Your task to perform on an android device: change the clock display to show seconds Image 0: 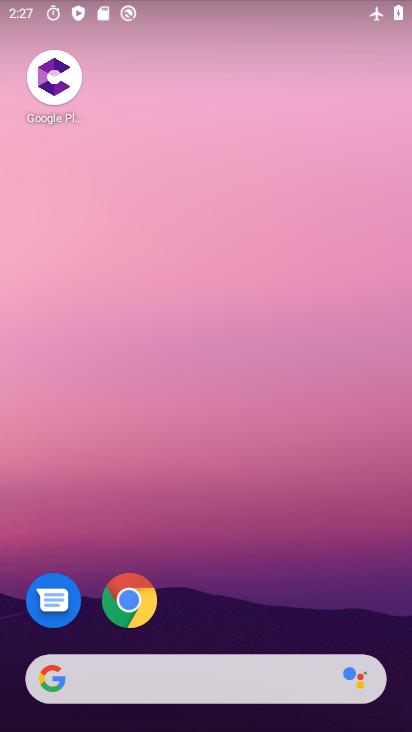
Step 0: drag from (277, 583) to (225, 28)
Your task to perform on an android device: change the clock display to show seconds Image 1: 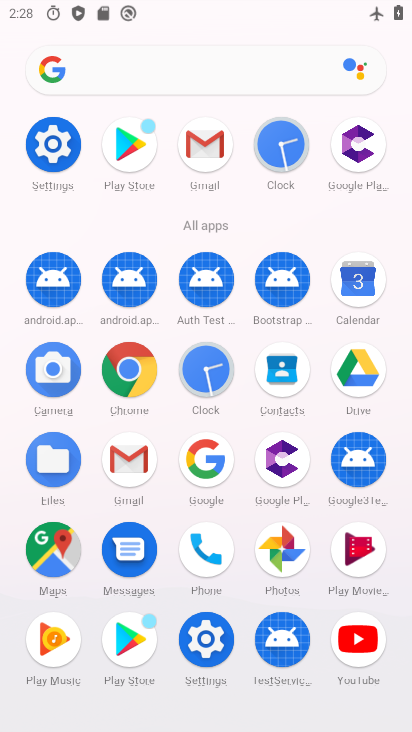
Step 1: click (204, 638)
Your task to perform on an android device: change the clock display to show seconds Image 2: 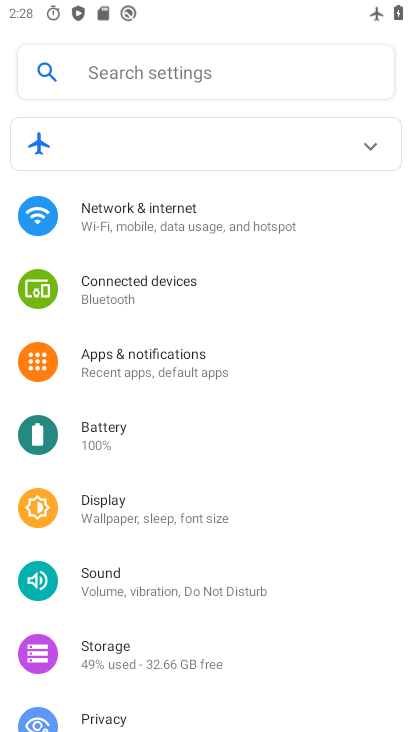
Step 2: press back button
Your task to perform on an android device: change the clock display to show seconds Image 3: 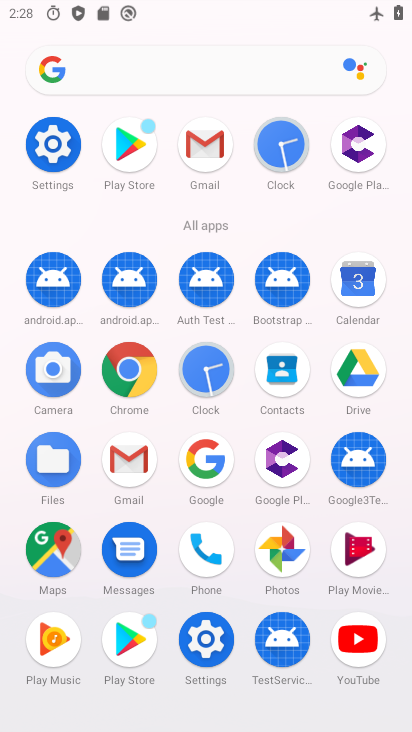
Step 3: click (281, 141)
Your task to perform on an android device: change the clock display to show seconds Image 4: 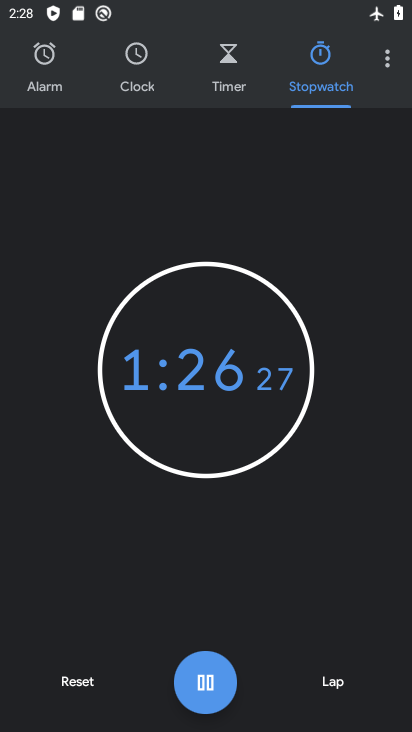
Step 4: drag from (389, 58) to (334, 110)
Your task to perform on an android device: change the clock display to show seconds Image 5: 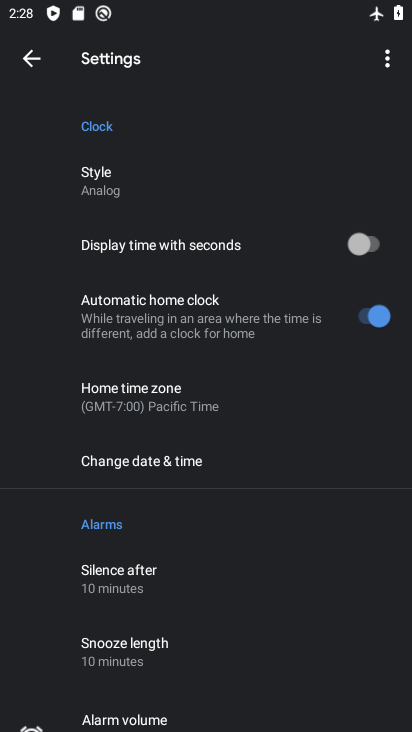
Step 5: click (360, 237)
Your task to perform on an android device: change the clock display to show seconds Image 6: 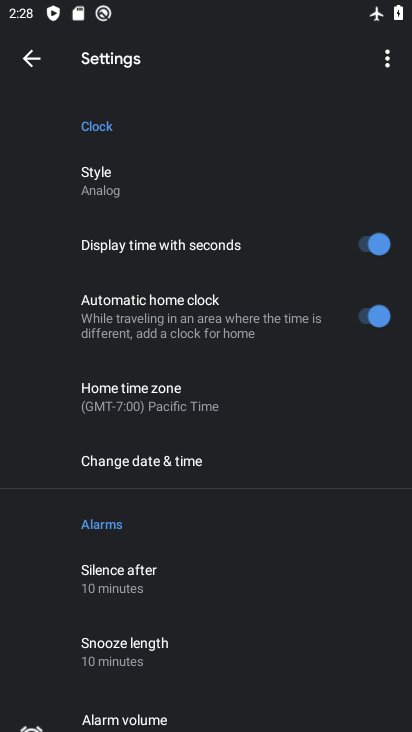
Step 6: task complete